Your task to perform on an android device: Search for pizza restaurants on Maps Image 0: 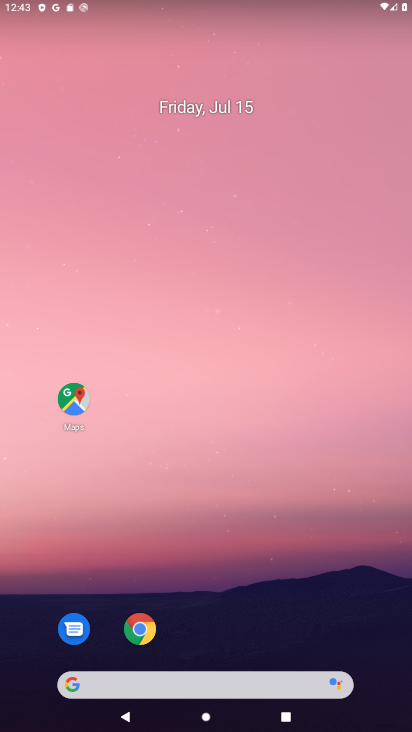
Step 0: drag from (362, 649) to (154, 47)
Your task to perform on an android device: Search for pizza restaurants on Maps Image 1: 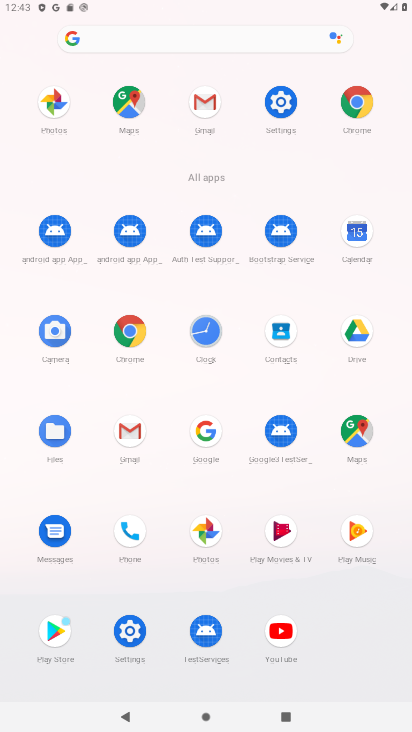
Step 1: click (126, 107)
Your task to perform on an android device: Search for pizza restaurants on Maps Image 2: 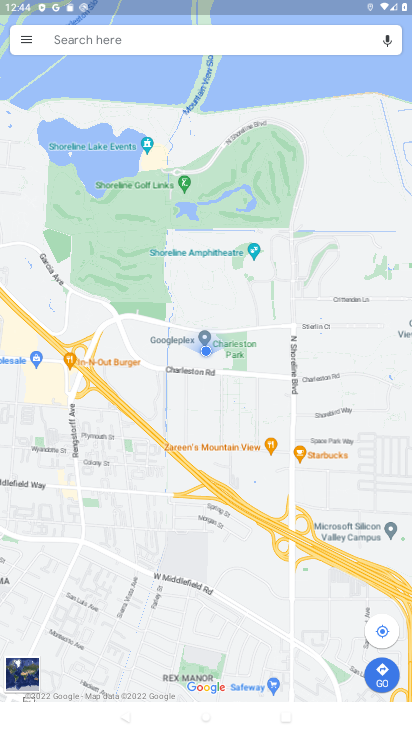
Step 2: click (209, 40)
Your task to perform on an android device: Search for pizza restaurants on Maps Image 3: 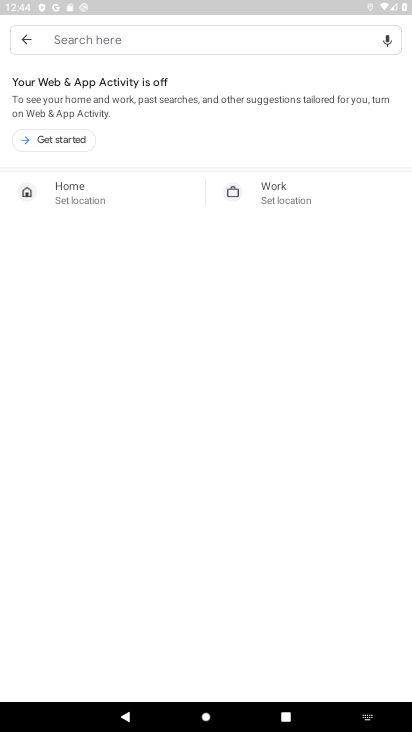
Step 3: type "pizza restaurants"
Your task to perform on an android device: Search for pizza restaurants on Maps Image 4: 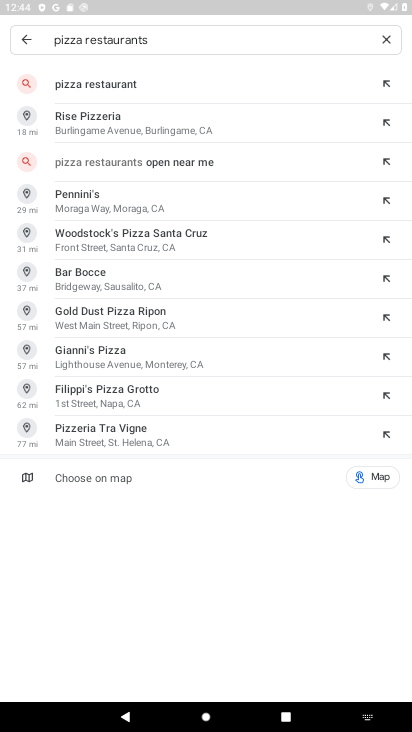
Step 4: click (174, 82)
Your task to perform on an android device: Search for pizza restaurants on Maps Image 5: 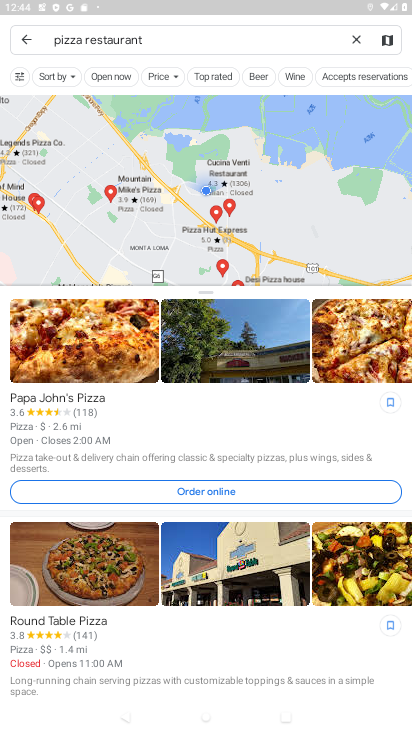
Step 5: task complete